Your task to perform on an android device: Search for pizza restaurants on Maps Image 0: 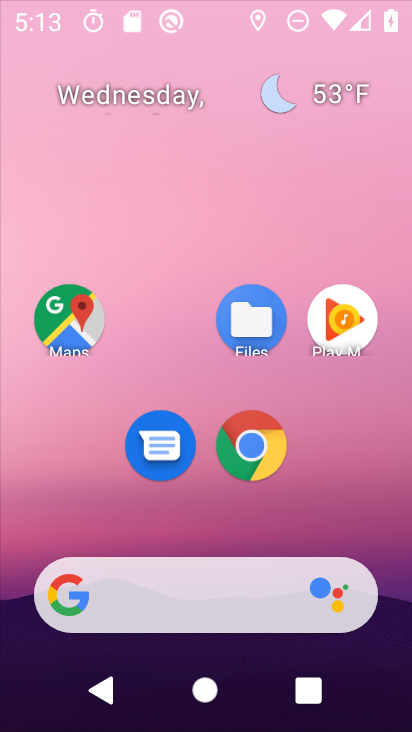
Step 0: drag from (334, 451) to (315, 162)
Your task to perform on an android device: Search for pizza restaurants on Maps Image 1: 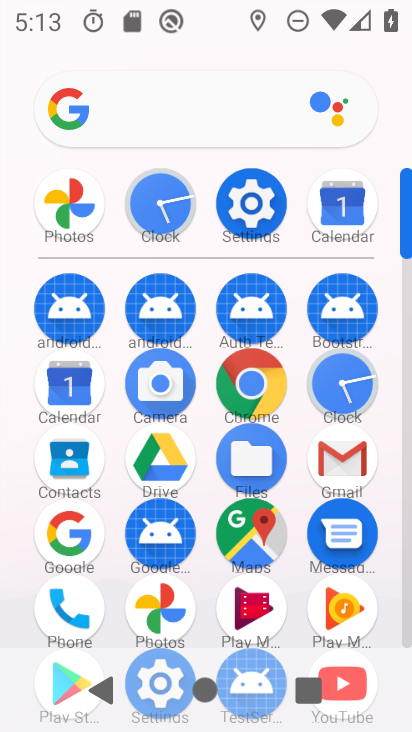
Step 1: click (40, 486)
Your task to perform on an android device: Search for pizza restaurants on Maps Image 2: 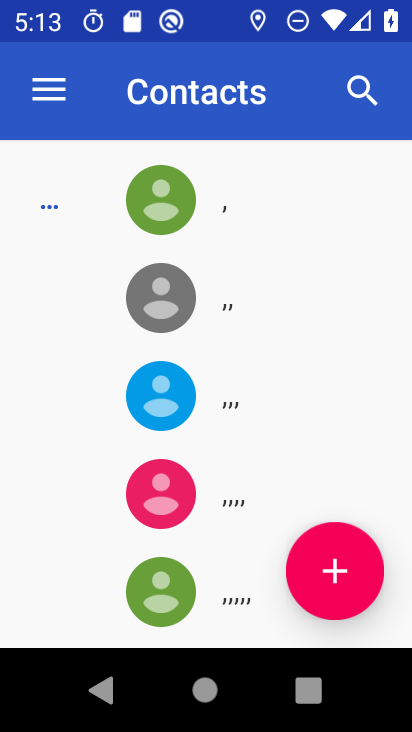
Step 2: press home button
Your task to perform on an android device: Search for pizza restaurants on Maps Image 3: 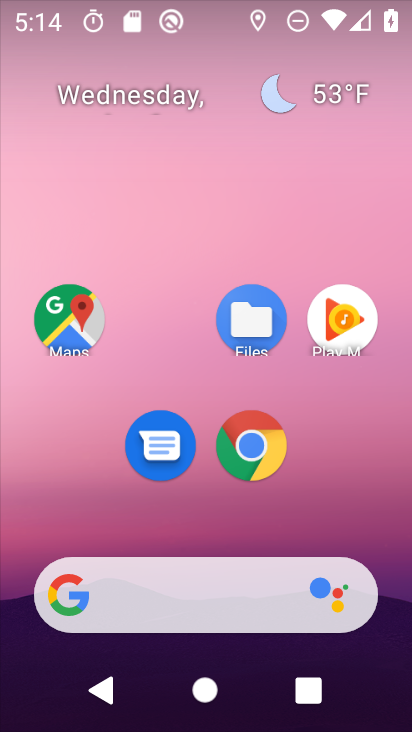
Step 3: click (85, 329)
Your task to perform on an android device: Search for pizza restaurants on Maps Image 4: 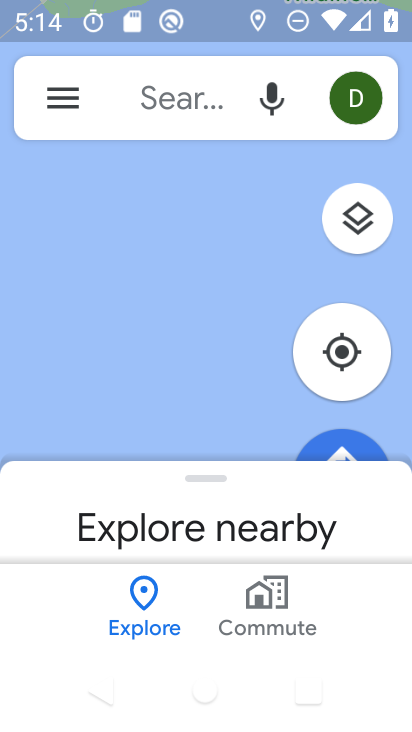
Step 4: click (182, 93)
Your task to perform on an android device: Search for pizza restaurants on Maps Image 5: 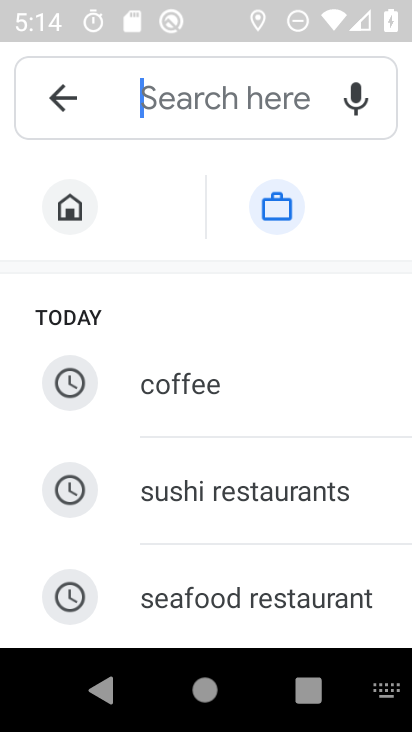
Step 5: type "pizza restaurant"
Your task to perform on an android device: Search for pizza restaurants on Maps Image 6: 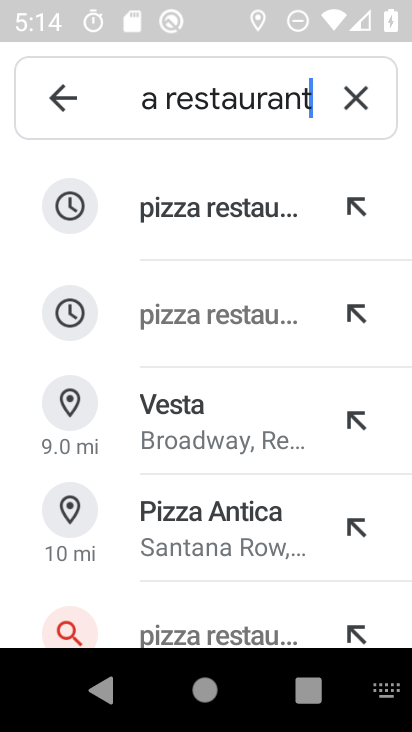
Step 6: click (283, 207)
Your task to perform on an android device: Search for pizza restaurants on Maps Image 7: 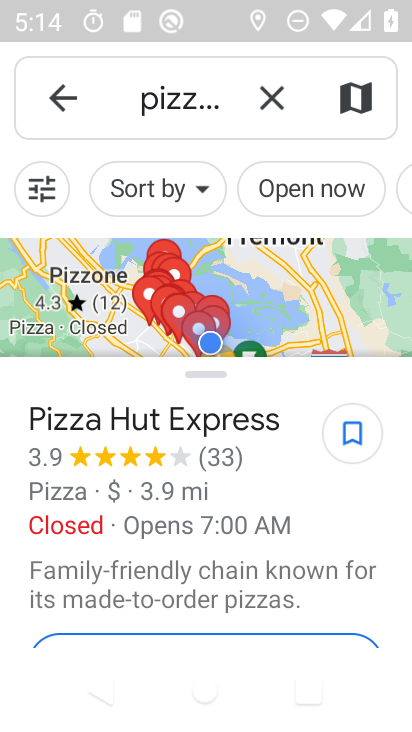
Step 7: task complete